Your task to perform on an android device: Go to Android settings Image 0: 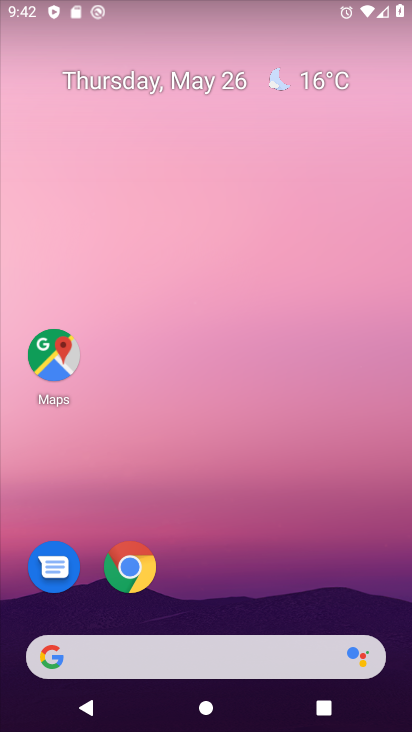
Step 0: drag from (377, 695) to (348, 114)
Your task to perform on an android device: Go to Android settings Image 1: 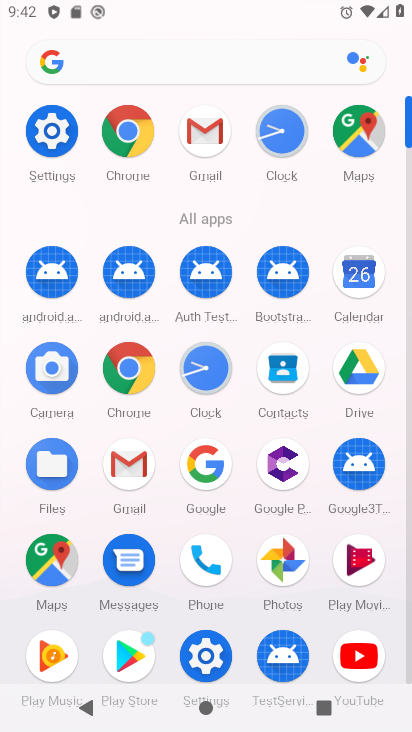
Step 1: click (43, 139)
Your task to perform on an android device: Go to Android settings Image 2: 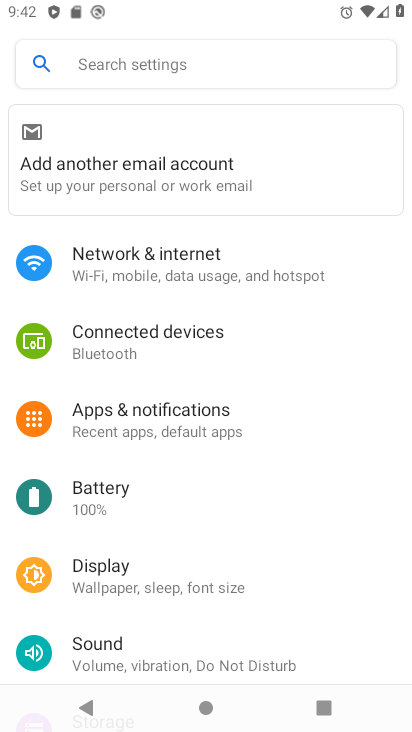
Step 2: task complete